Your task to perform on an android device: Open Amazon Image 0: 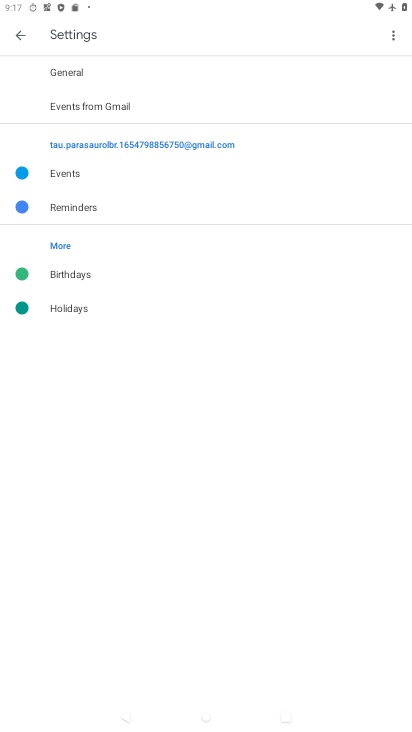
Step 0: press home button
Your task to perform on an android device: Open Amazon Image 1: 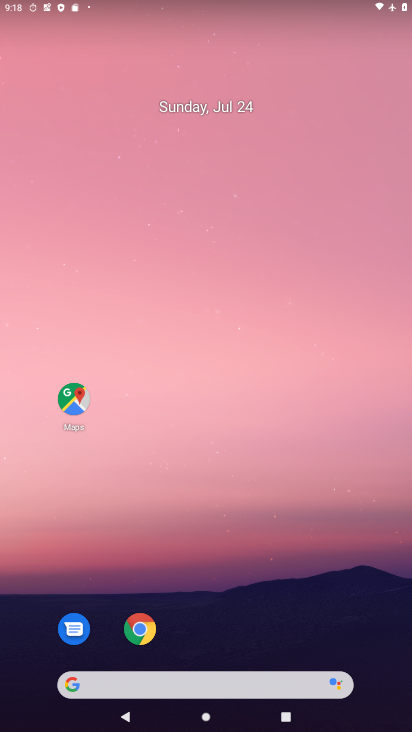
Step 1: drag from (165, 616) to (167, 0)
Your task to perform on an android device: Open Amazon Image 2: 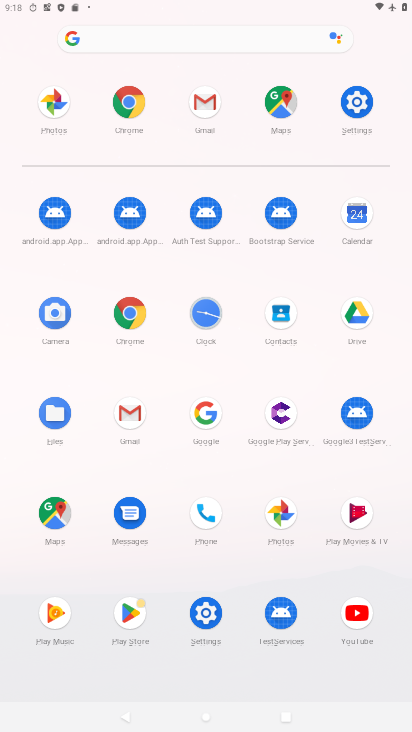
Step 2: click (136, 123)
Your task to perform on an android device: Open Amazon Image 3: 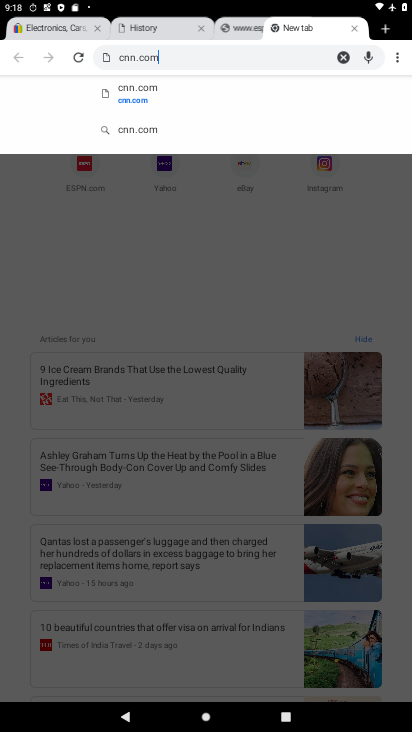
Step 3: click (258, 528)
Your task to perform on an android device: Open Amazon Image 4: 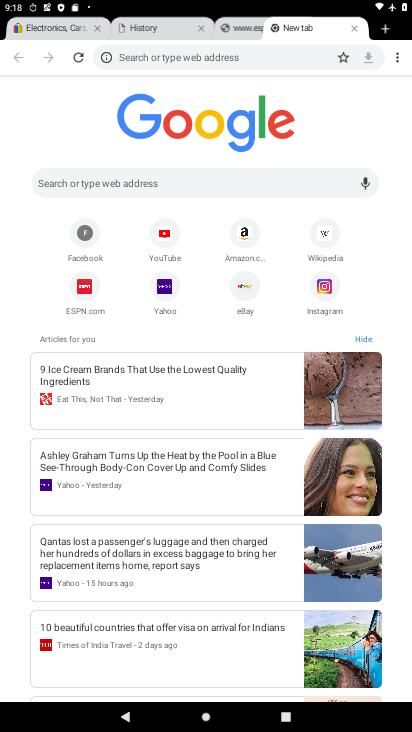
Step 4: click (251, 247)
Your task to perform on an android device: Open Amazon Image 5: 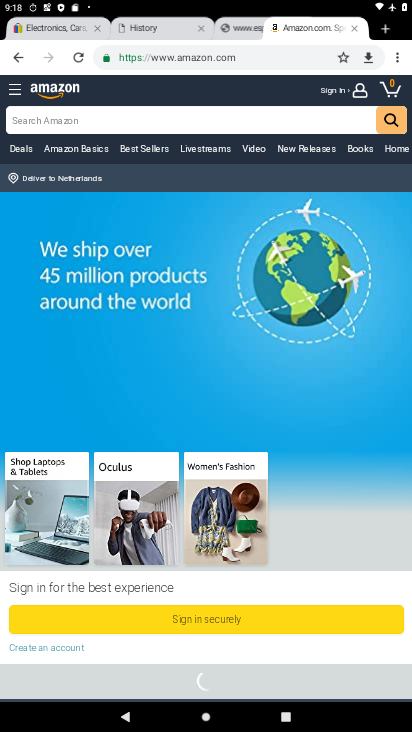
Step 5: task complete